Your task to perform on an android device: add a contact in the contacts app Image 0: 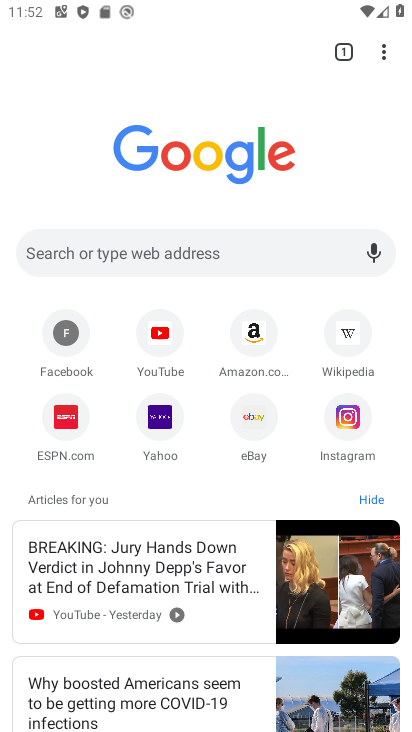
Step 0: press home button
Your task to perform on an android device: add a contact in the contacts app Image 1: 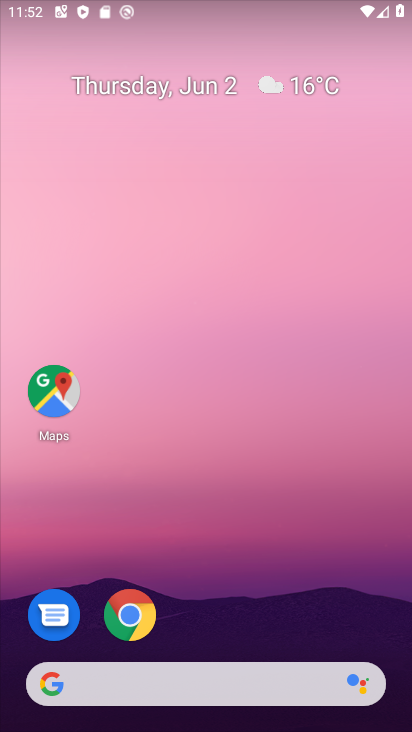
Step 1: drag from (253, 477) to (279, 248)
Your task to perform on an android device: add a contact in the contacts app Image 2: 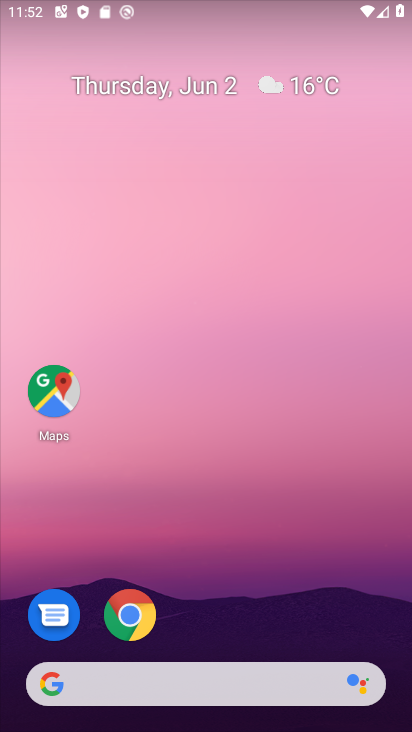
Step 2: drag from (216, 573) to (266, 214)
Your task to perform on an android device: add a contact in the contacts app Image 3: 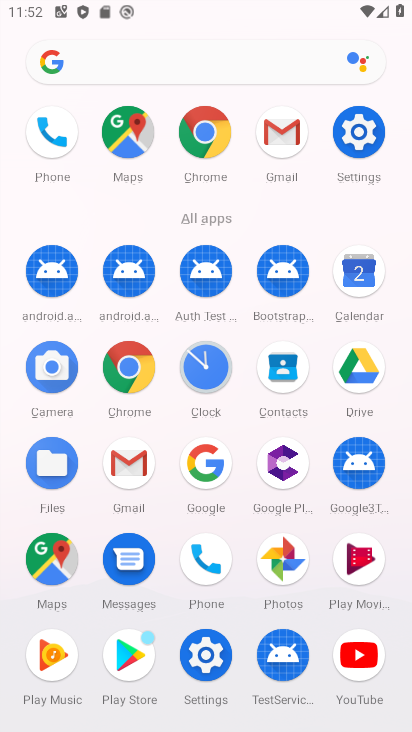
Step 3: click (45, 124)
Your task to perform on an android device: add a contact in the contacts app Image 4: 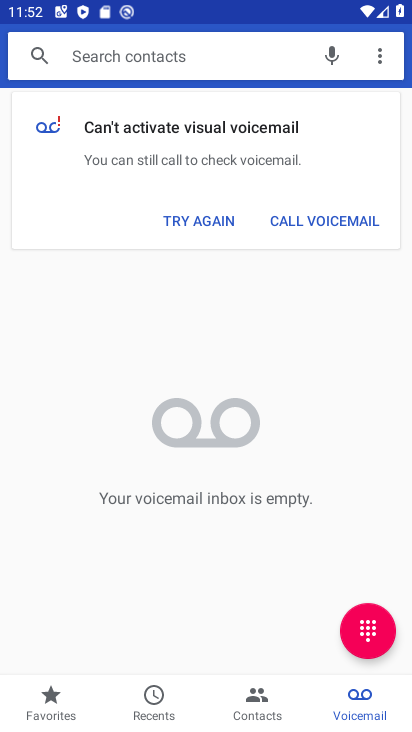
Step 4: click (145, 693)
Your task to perform on an android device: add a contact in the contacts app Image 5: 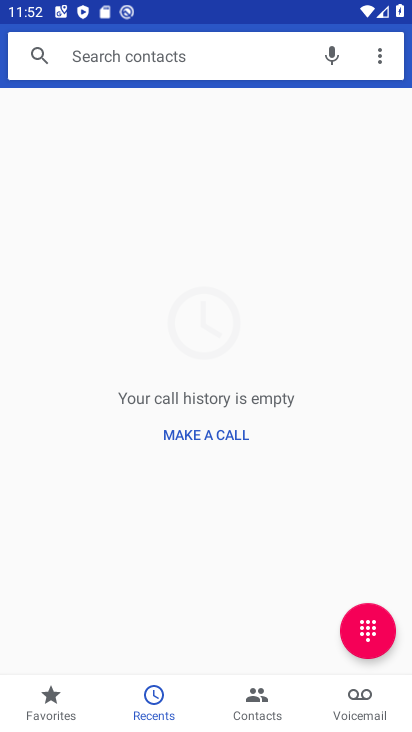
Step 5: click (240, 694)
Your task to perform on an android device: add a contact in the contacts app Image 6: 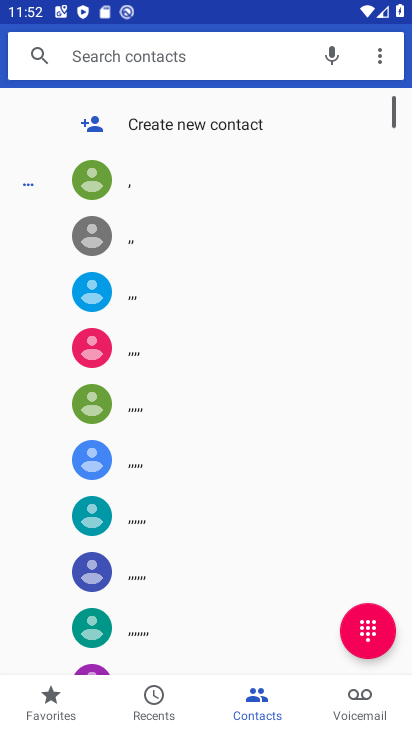
Step 6: click (101, 88)
Your task to perform on an android device: add a contact in the contacts app Image 7: 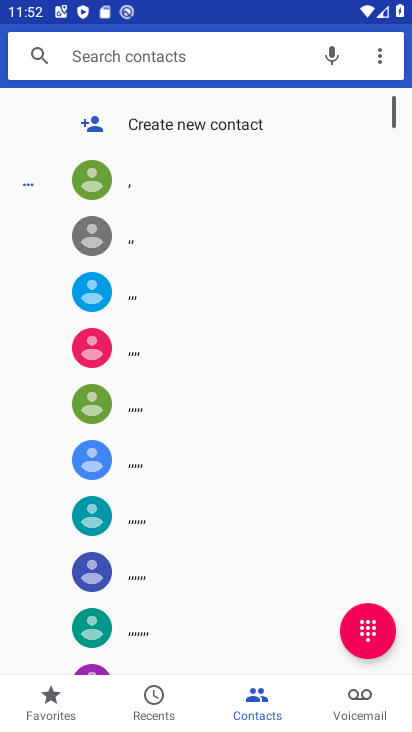
Step 7: click (108, 107)
Your task to perform on an android device: add a contact in the contacts app Image 8: 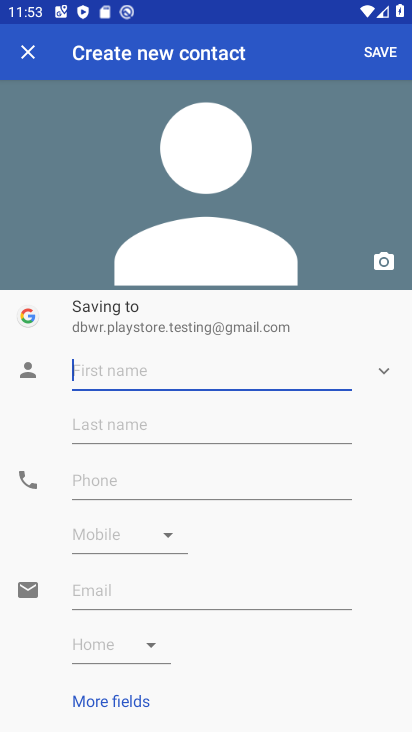
Step 8: type "dddddddddddddddd"
Your task to perform on an android device: add a contact in the contacts app Image 9: 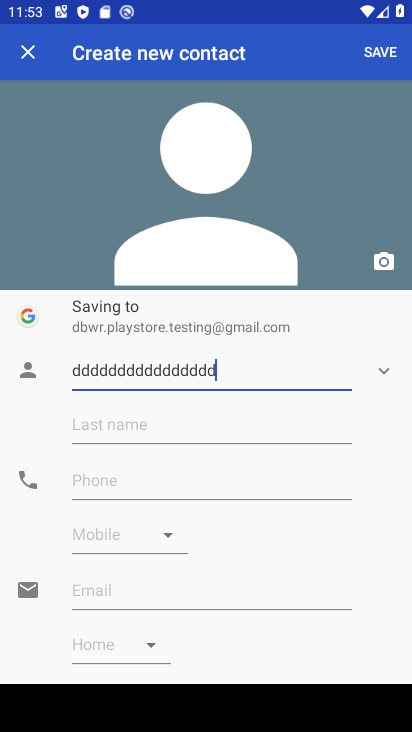
Step 9: click (102, 472)
Your task to perform on an android device: add a contact in the contacts app Image 10: 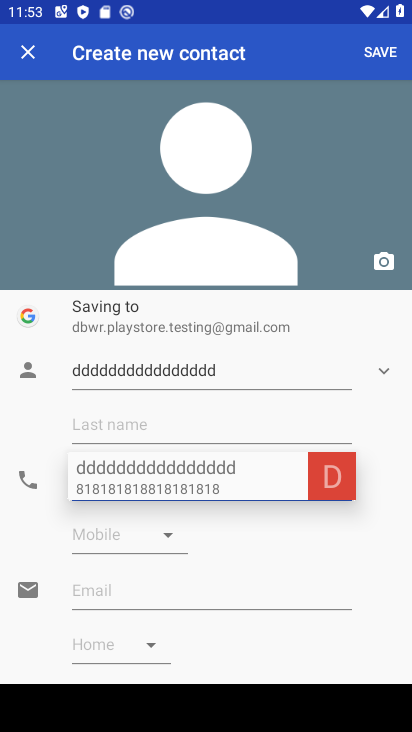
Step 10: type "7777777777"
Your task to perform on an android device: add a contact in the contacts app Image 11: 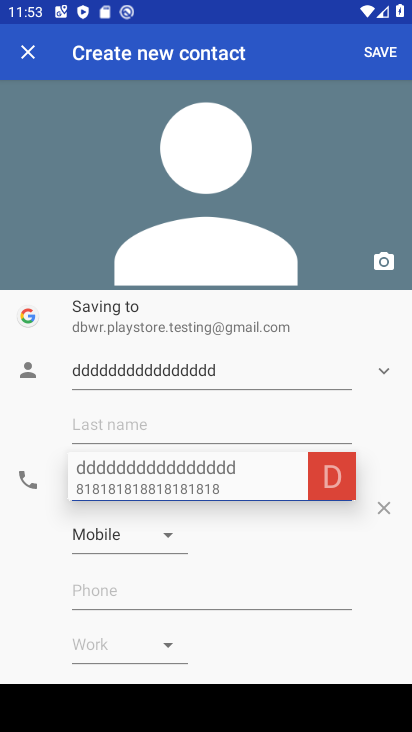
Step 11: click (155, 465)
Your task to perform on an android device: add a contact in the contacts app Image 12: 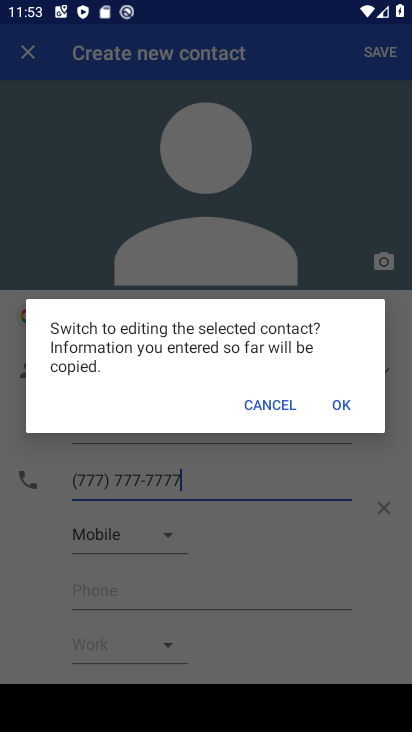
Step 12: click (242, 405)
Your task to perform on an android device: add a contact in the contacts app Image 13: 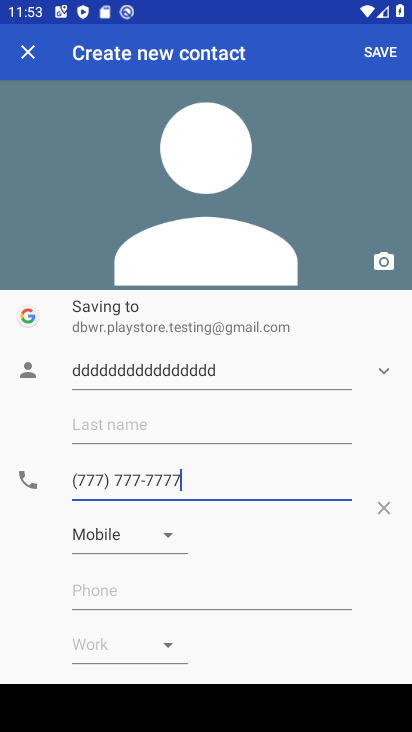
Step 13: task complete